Your task to perform on an android device: Is it going to rain today? Image 0: 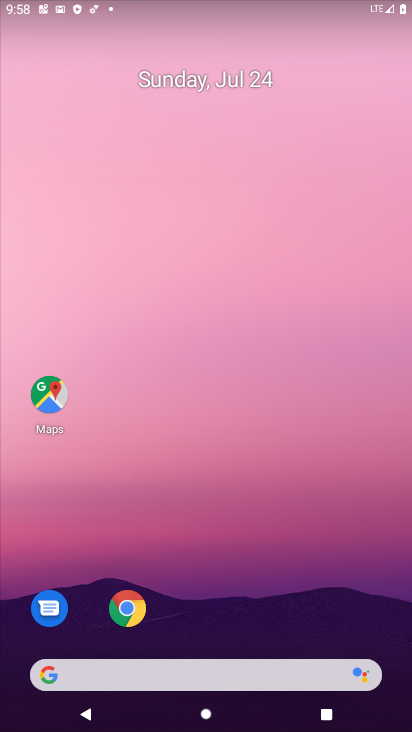
Step 0: press home button
Your task to perform on an android device: Is it going to rain today? Image 1: 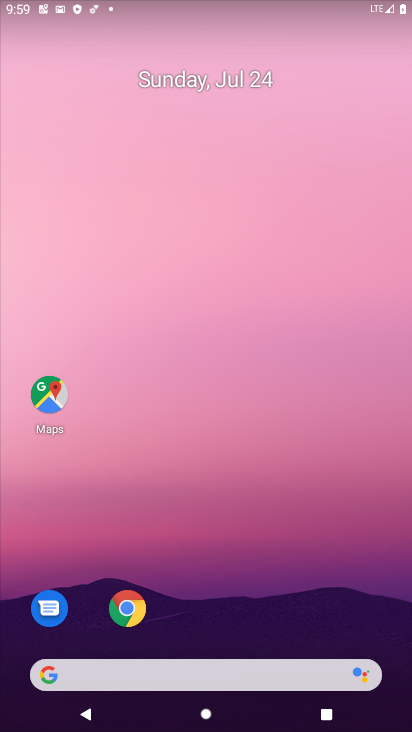
Step 1: click (175, 673)
Your task to perform on an android device: Is it going to rain today? Image 2: 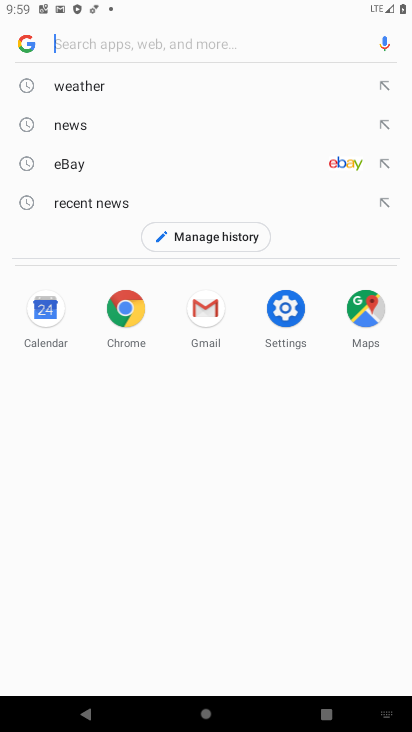
Step 2: click (102, 79)
Your task to perform on an android device: Is it going to rain today? Image 3: 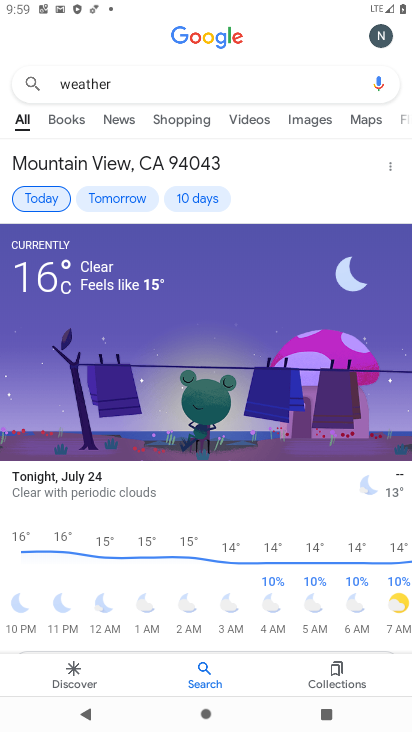
Step 3: task complete